Your task to perform on an android device: Open privacy settings Image 0: 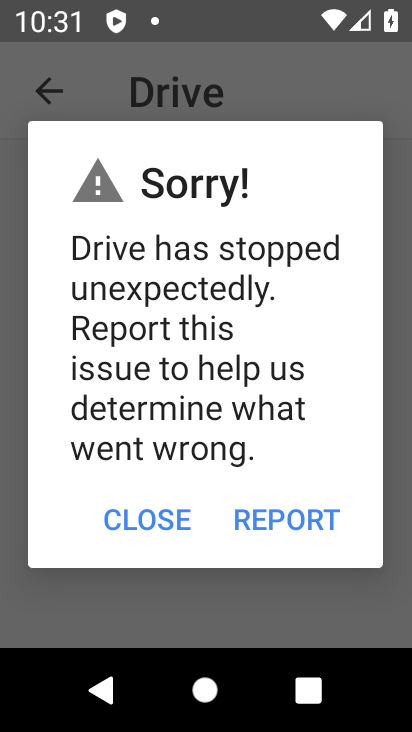
Step 0: press home button
Your task to perform on an android device: Open privacy settings Image 1: 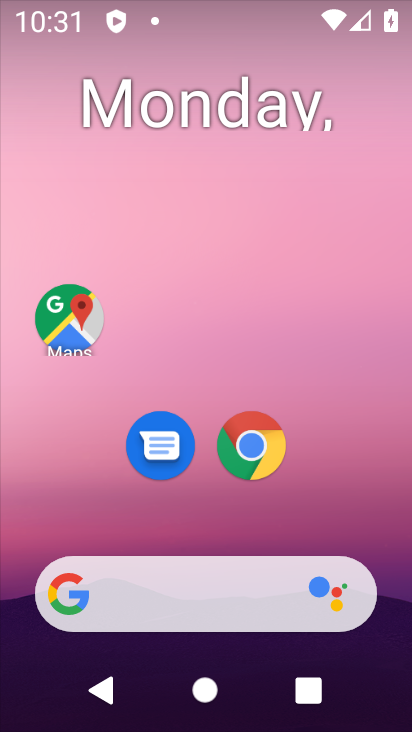
Step 1: drag from (275, 534) to (249, 72)
Your task to perform on an android device: Open privacy settings Image 2: 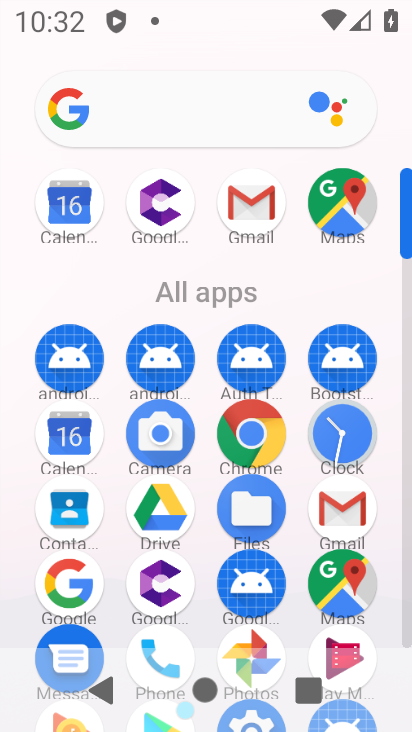
Step 2: drag from (300, 617) to (292, 312)
Your task to perform on an android device: Open privacy settings Image 3: 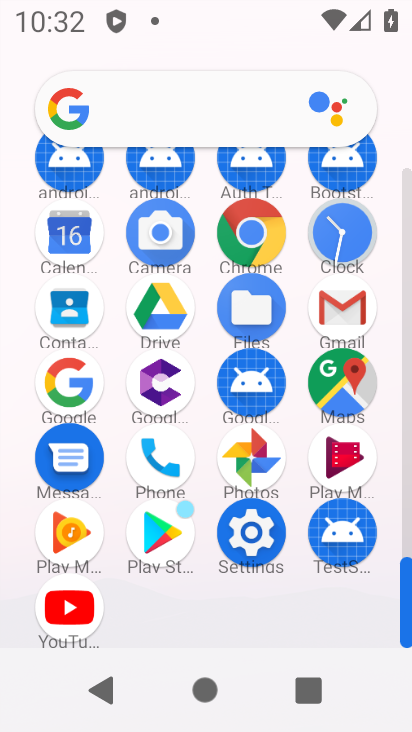
Step 3: click (252, 554)
Your task to perform on an android device: Open privacy settings Image 4: 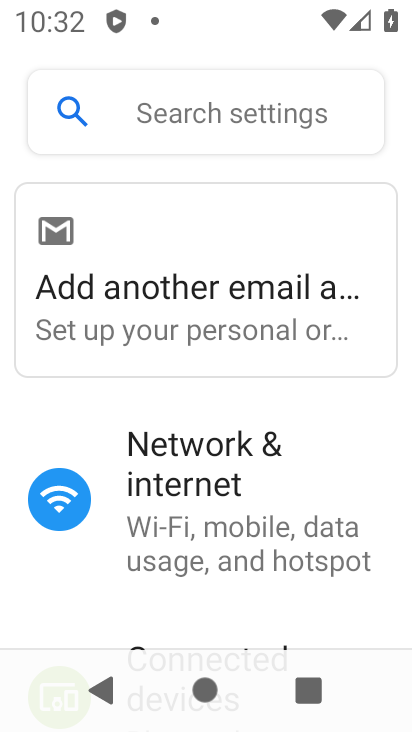
Step 4: drag from (254, 539) to (210, 156)
Your task to perform on an android device: Open privacy settings Image 5: 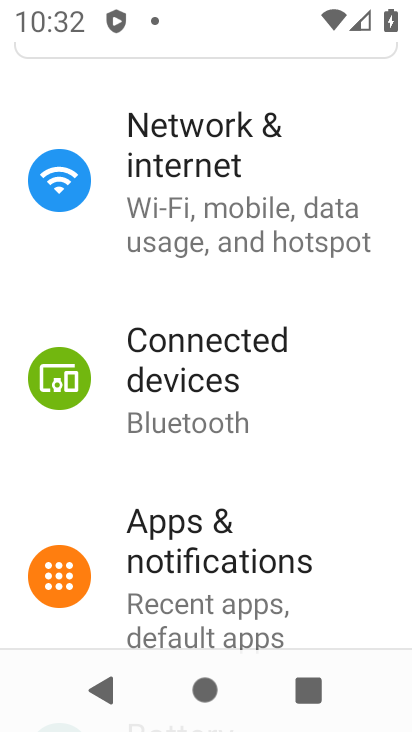
Step 5: drag from (247, 580) to (268, 90)
Your task to perform on an android device: Open privacy settings Image 6: 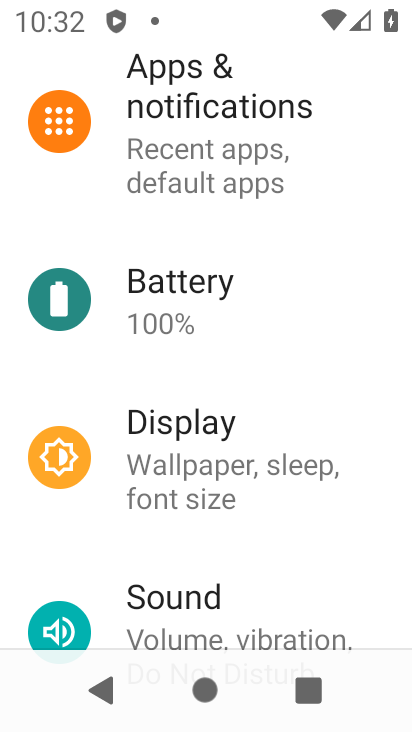
Step 6: drag from (259, 612) to (255, 172)
Your task to perform on an android device: Open privacy settings Image 7: 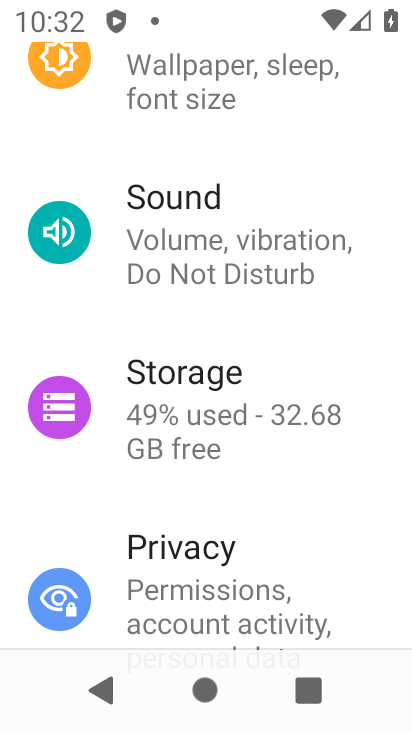
Step 7: click (192, 603)
Your task to perform on an android device: Open privacy settings Image 8: 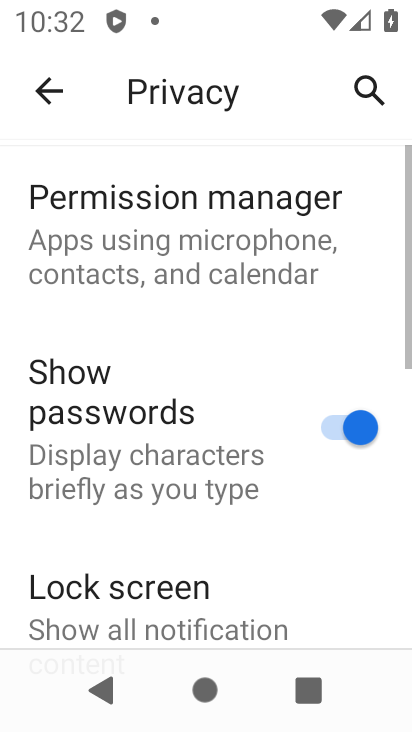
Step 8: task complete